Your task to perform on an android device: toggle notification dots Image 0: 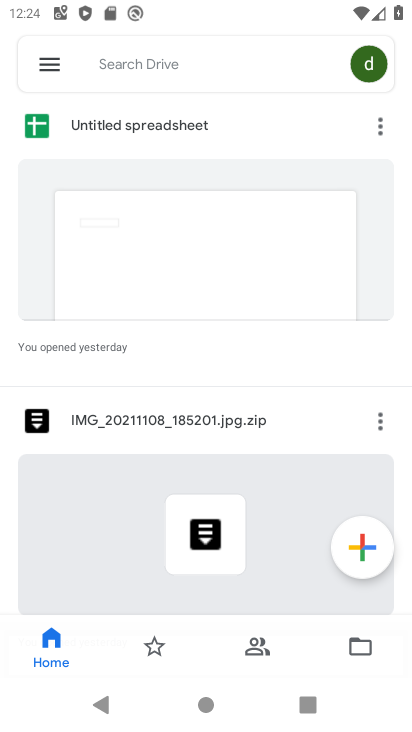
Step 0: press back button
Your task to perform on an android device: toggle notification dots Image 1: 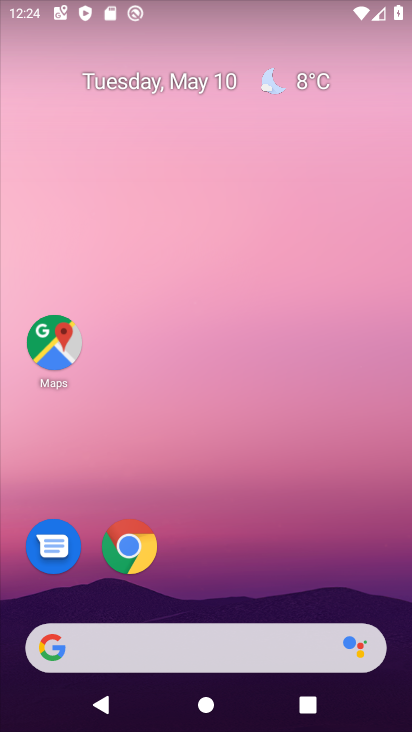
Step 1: drag from (358, 614) to (60, 0)
Your task to perform on an android device: toggle notification dots Image 2: 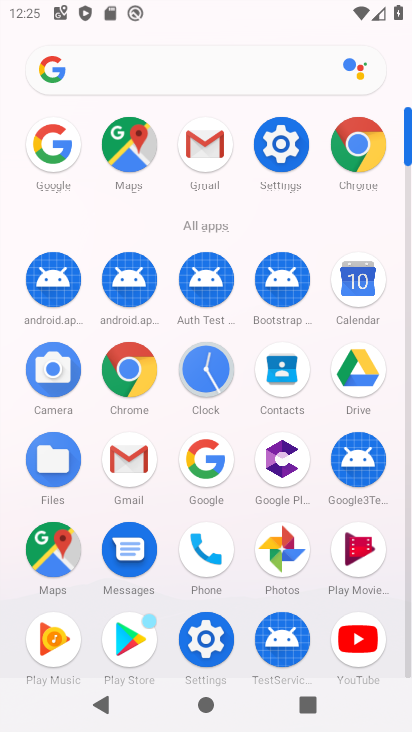
Step 2: click (279, 145)
Your task to perform on an android device: toggle notification dots Image 3: 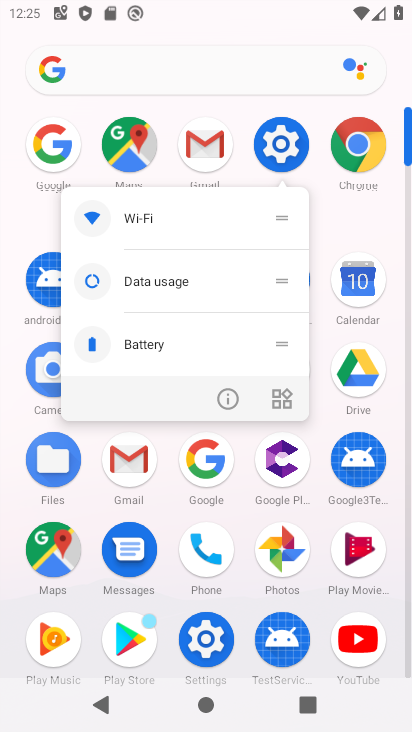
Step 3: click (281, 147)
Your task to perform on an android device: toggle notification dots Image 4: 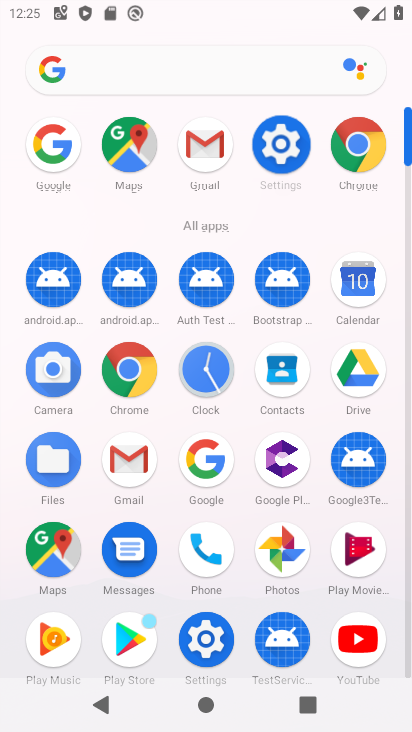
Step 4: click (281, 147)
Your task to perform on an android device: toggle notification dots Image 5: 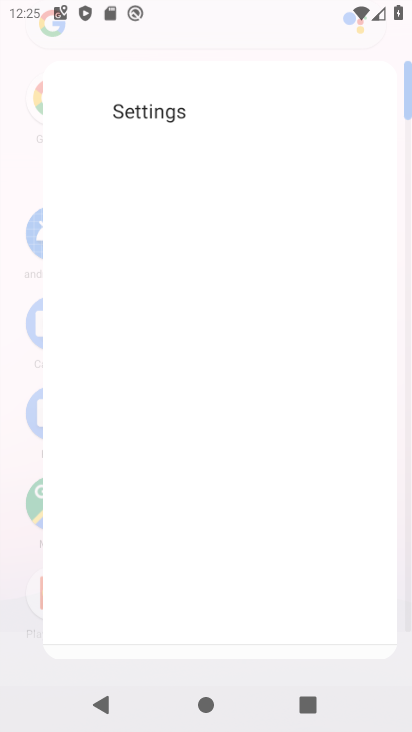
Step 5: click (281, 147)
Your task to perform on an android device: toggle notification dots Image 6: 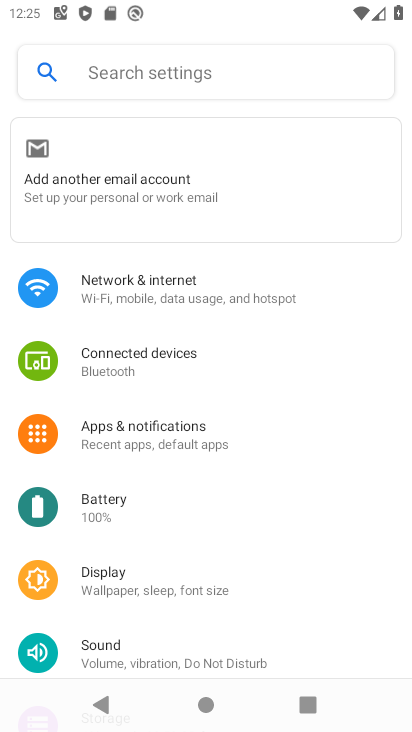
Step 6: click (132, 434)
Your task to perform on an android device: toggle notification dots Image 7: 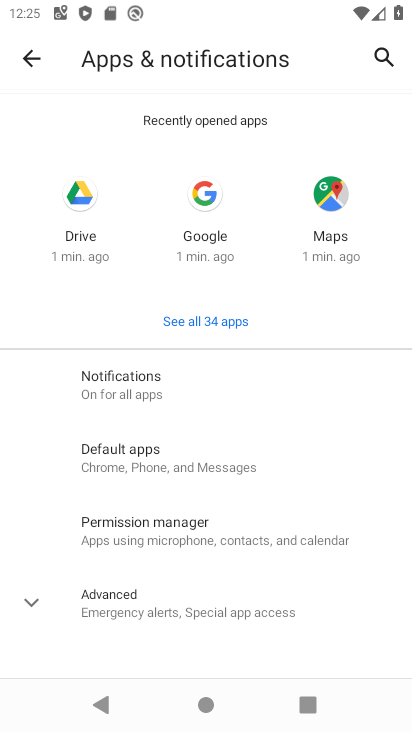
Step 7: click (126, 399)
Your task to perform on an android device: toggle notification dots Image 8: 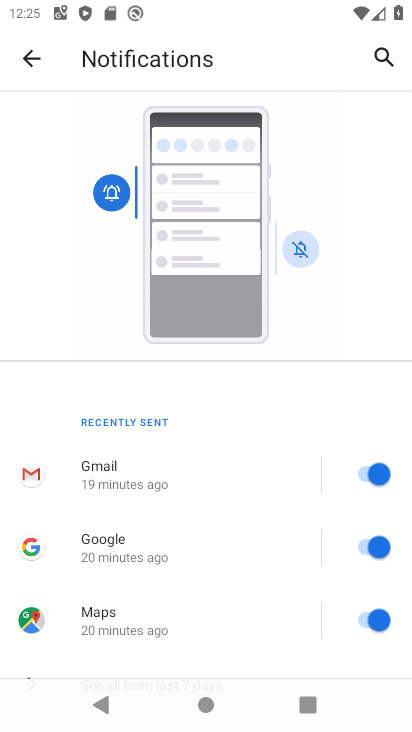
Step 8: drag from (202, 547) to (177, 258)
Your task to perform on an android device: toggle notification dots Image 9: 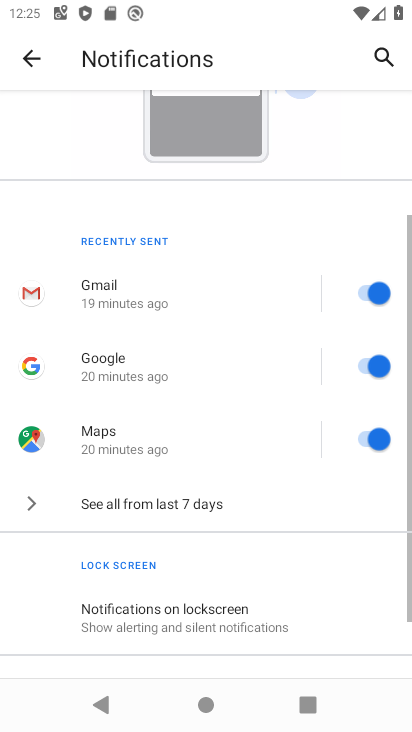
Step 9: drag from (211, 470) to (155, 108)
Your task to perform on an android device: toggle notification dots Image 10: 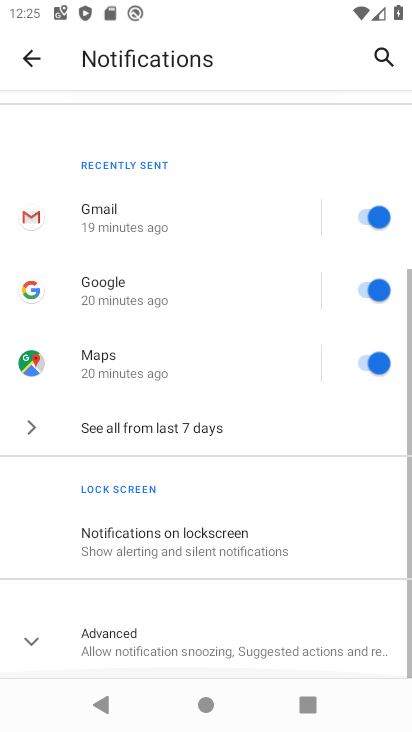
Step 10: drag from (231, 463) to (179, 232)
Your task to perform on an android device: toggle notification dots Image 11: 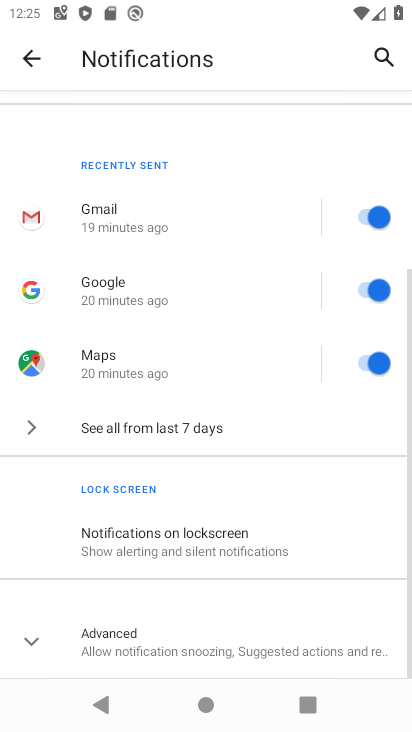
Step 11: click (178, 532)
Your task to perform on an android device: toggle notification dots Image 12: 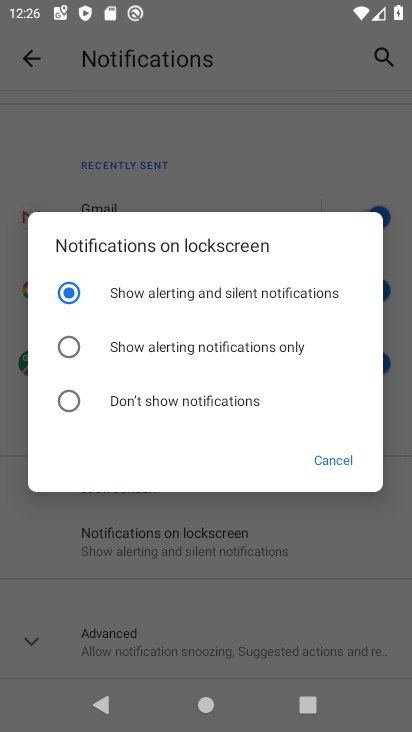
Step 12: click (73, 341)
Your task to perform on an android device: toggle notification dots Image 13: 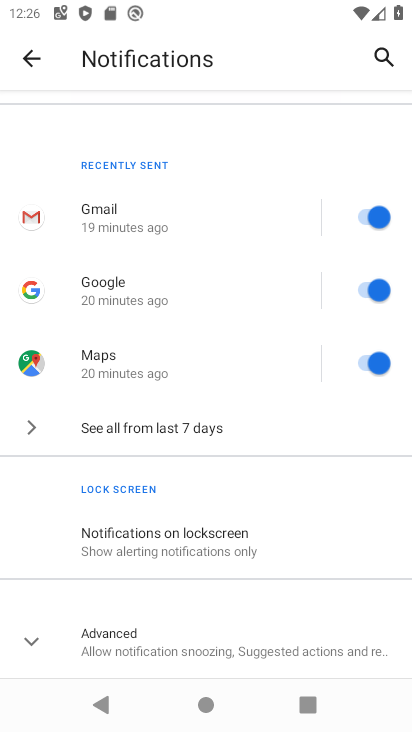
Step 13: task complete